Your task to perform on an android device: change the clock display to show seconds Image 0: 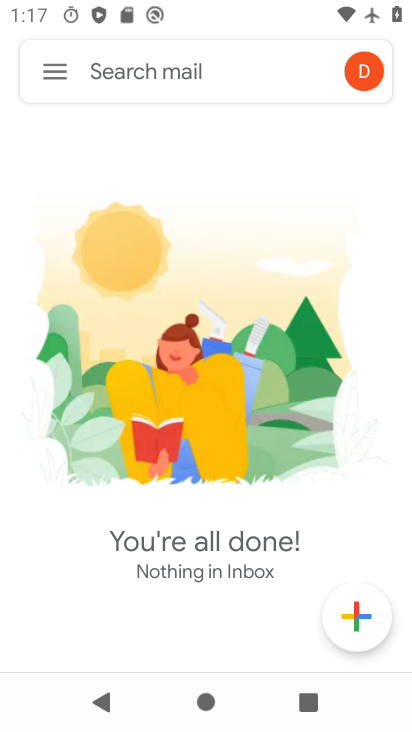
Step 0: press home button
Your task to perform on an android device: change the clock display to show seconds Image 1: 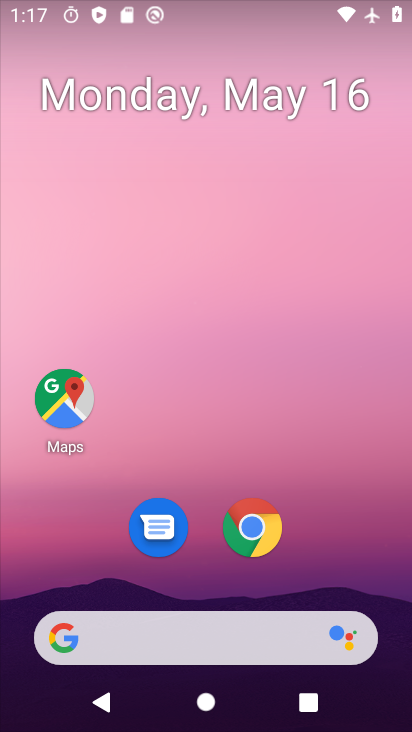
Step 1: drag from (159, 640) to (335, 21)
Your task to perform on an android device: change the clock display to show seconds Image 2: 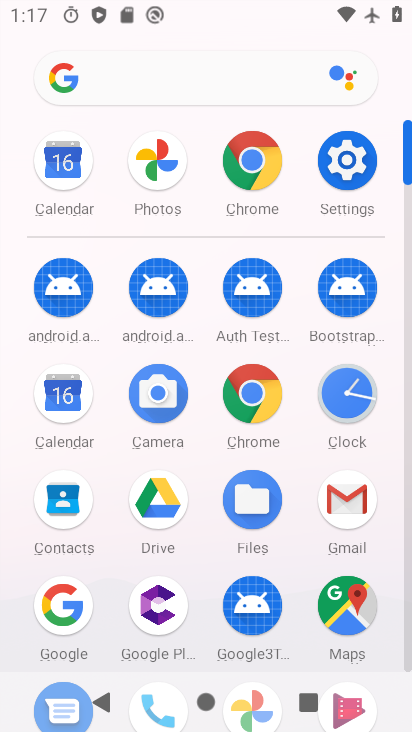
Step 2: click (346, 399)
Your task to perform on an android device: change the clock display to show seconds Image 3: 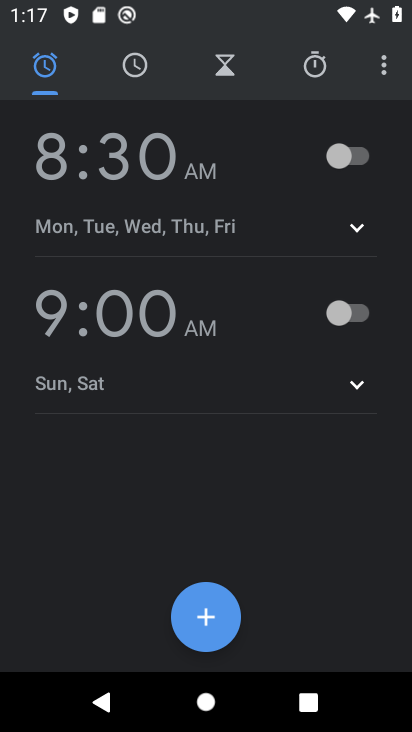
Step 3: click (387, 65)
Your task to perform on an android device: change the clock display to show seconds Image 4: 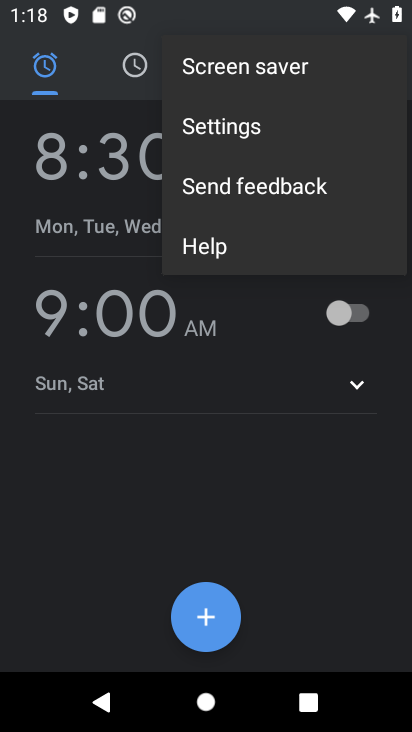
Step 4: click (207, 127)
Your task to perform on an android device: change the clock display to show seconds Image 5: 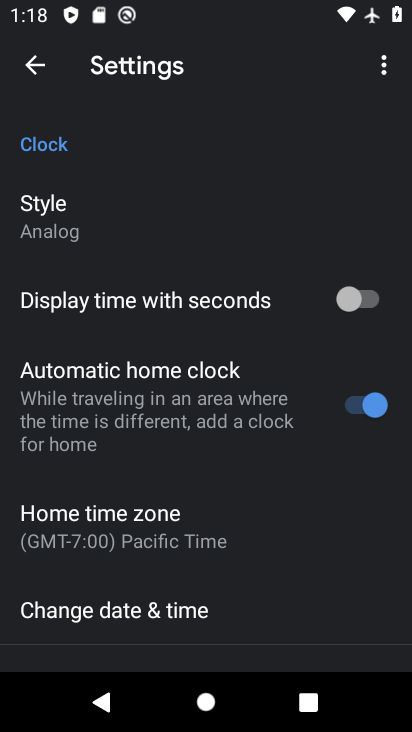
Step 5: click (373, 301)
Your task to perform on an android device: change the clock display to show seconds Image 6: 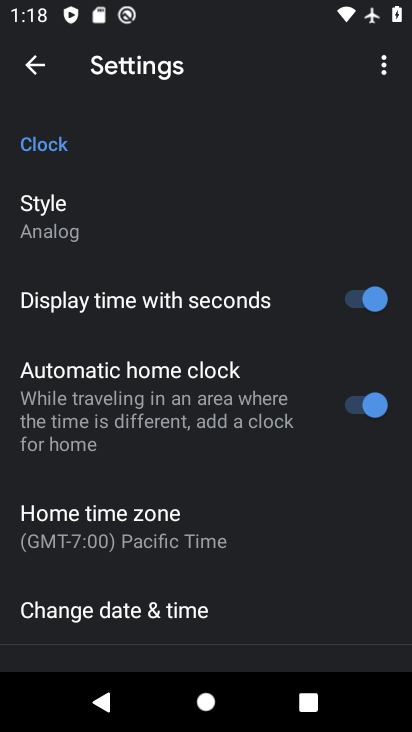
Step 6: task complete